Your task to perform on an android device: turn off translation in the chrome app Image 0: 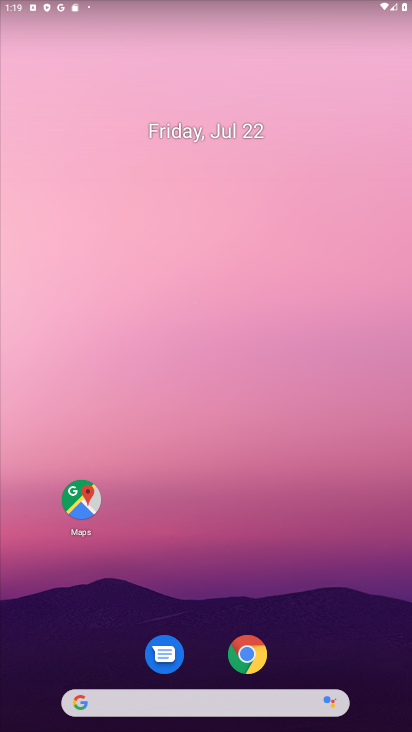
Step 0: click (245, 649)
Your task to perform on an android device: turn off translation in the chrome app Image 1: 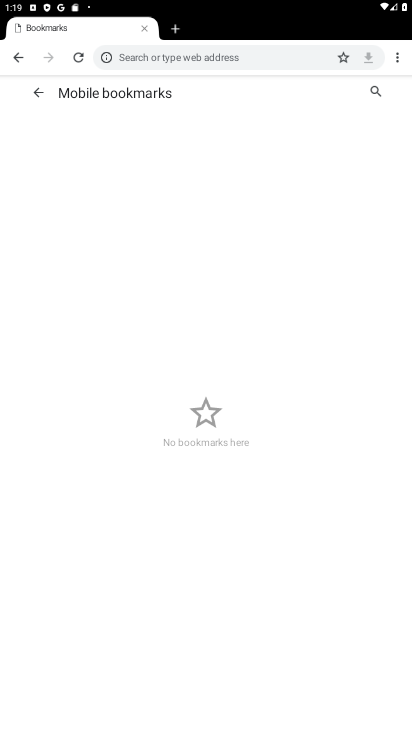
Step 1: click (400, 58)
Your task to perform on an android device: turn off translation in the chrome app Image 2: 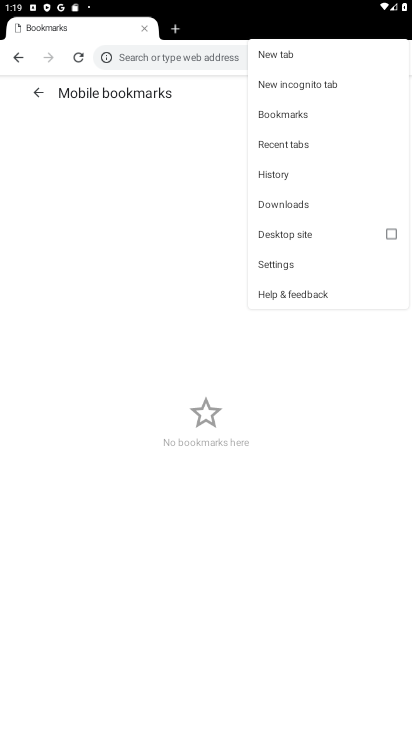
Step 2: click (282, 259)
Your task to perform on an android device: turn off translation in the chrome app Image 3: 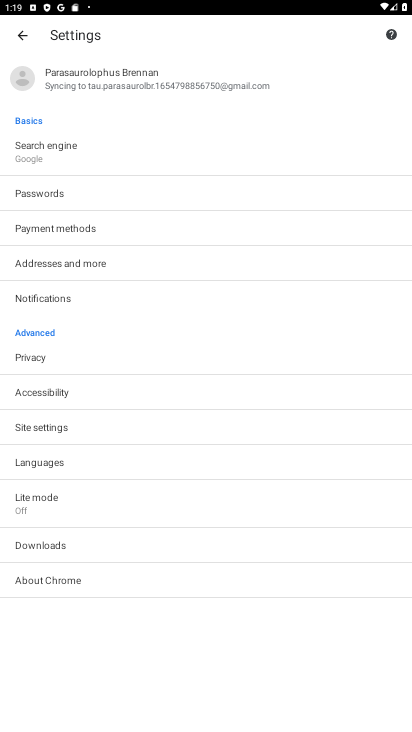
Step 3: click (64, 431)
Your task to perform on an android device: turn off translation in the chrome app Image 4: 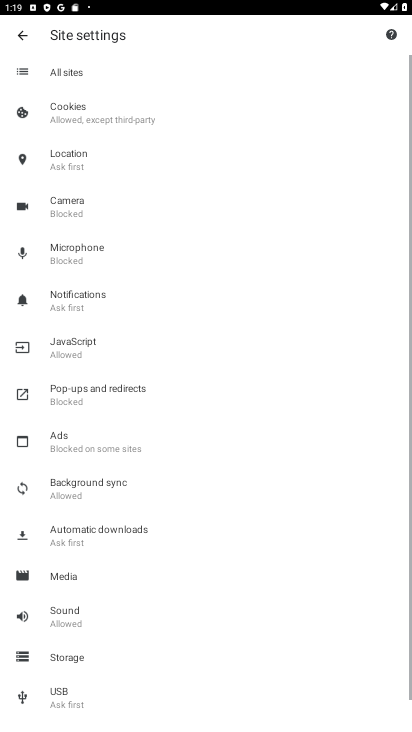
Step 4: click (27, 42)
Your task to perform on an android device: turn off translation in the chrome app Image 5: 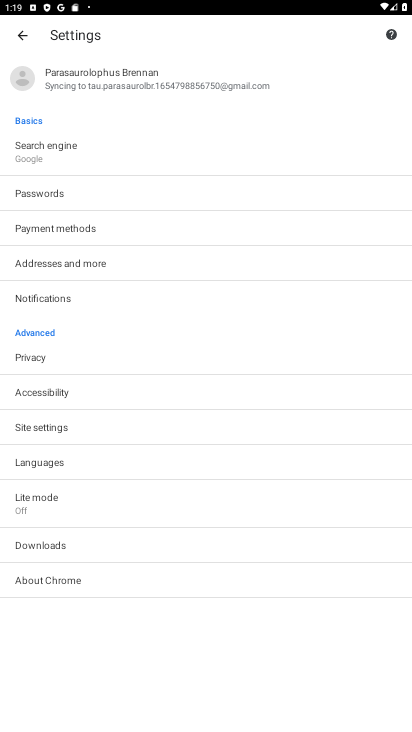
Step 5: click (97, 462)
Your task to perform on an android device: turn off translation in the chrome app Image 6: 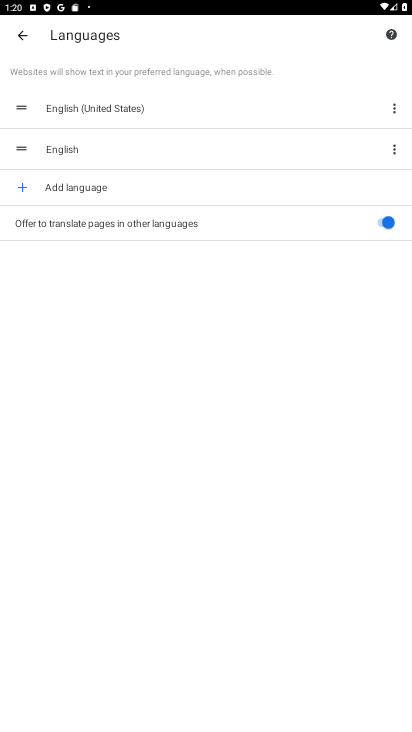
Step 6: click (334, 215)
Your task to perform on an android device: turn off translation in the chrome app Image 7: 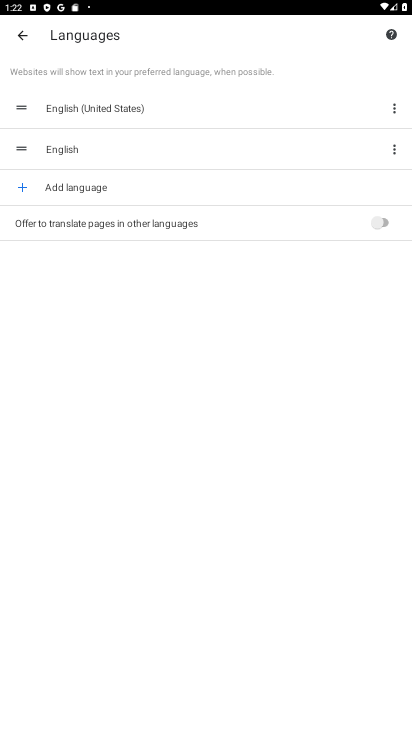
Step 7: task complete